Your task to perform on an android device: Open calendar and show me the third week of next month Image 0: 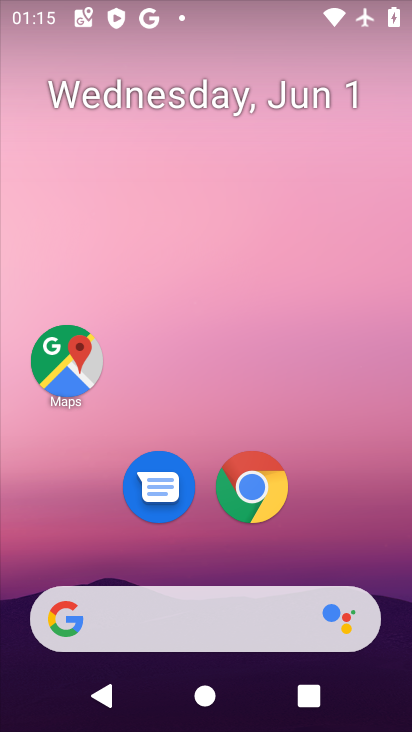
Step 0: drag from (322, 541) to (276, 233)
Your task to perform on an android device: Open calendar and show me the third week of next month Image 1: 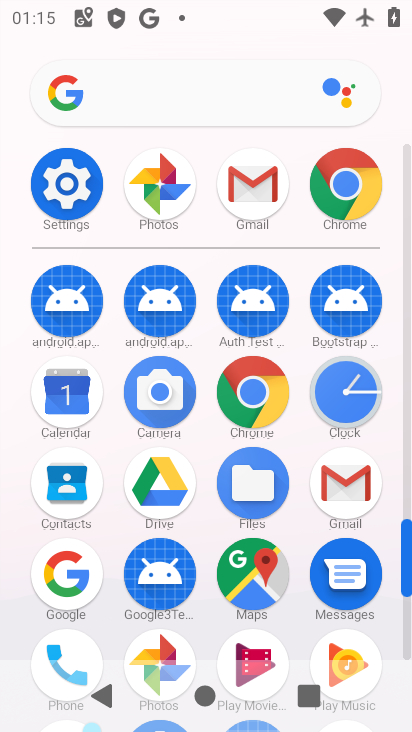
Step 1: click (55, 383)
Your task to perform on an android device: Open calendar and show me the third week of next month Image 2: 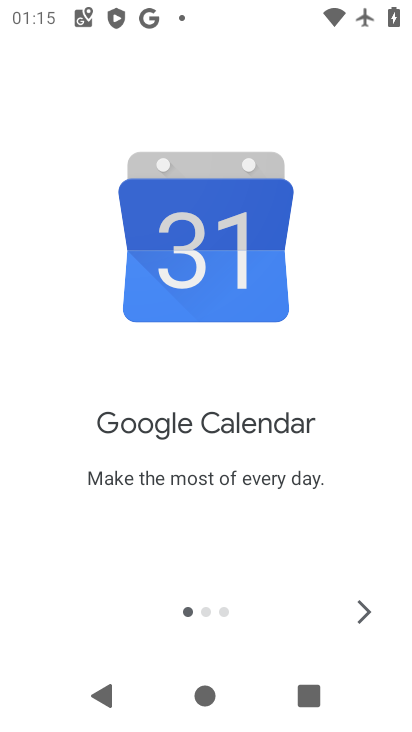
Step 2: click (359, 627)
Your task to perform on an android device: Open calendar and show me the third week of next month Image 3: 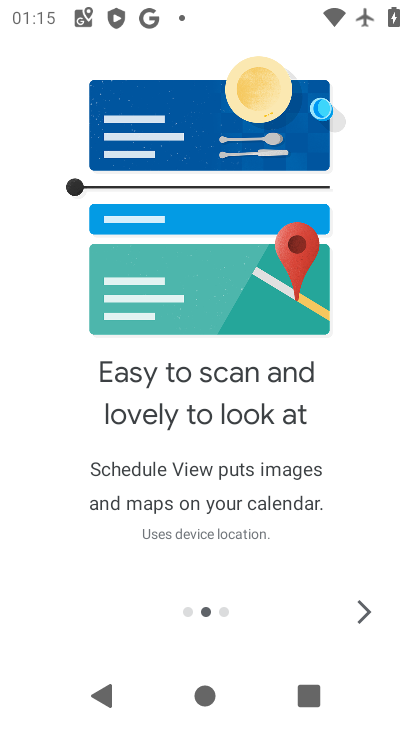
Step 3: click (360, 625)
Your task to perform on an android device: Open calendar and show me the third week of next month Image 4: 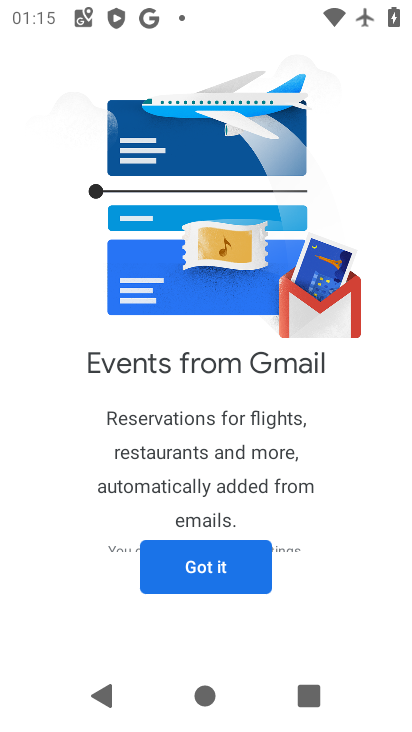
Step 4: click (208, 563)
Your task to perform on an android device: Open calendar and show me the third week of next month Image 5: 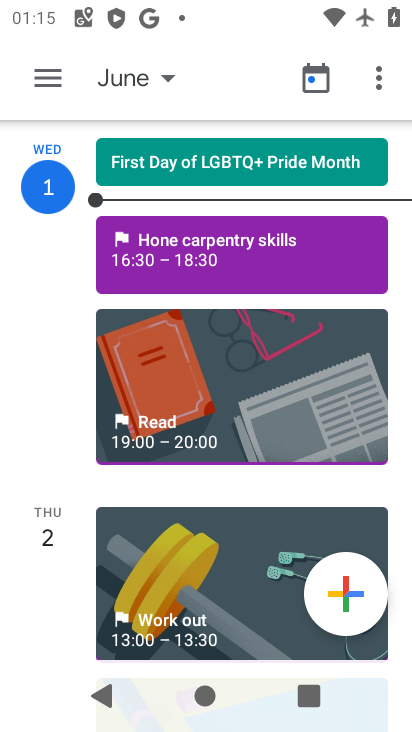
Step 5: click (46, 64)
Your task to perform on an android device: Open calendar and show me the third week of next month Image 6: 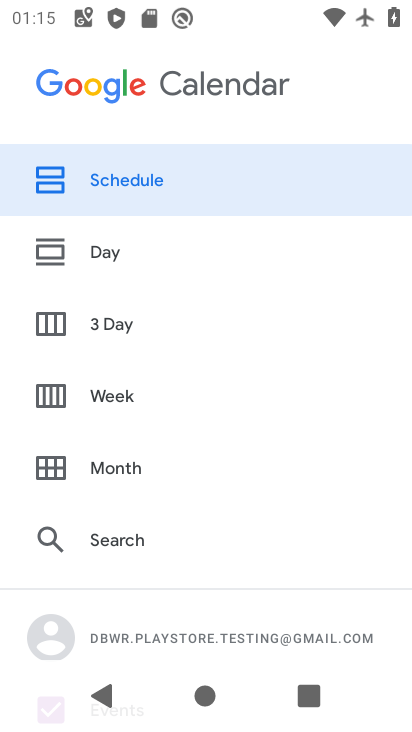
Step 6: click (127, 461)
Your task to perform on an android device: Open calendar and show me the third week of next month Image 7: 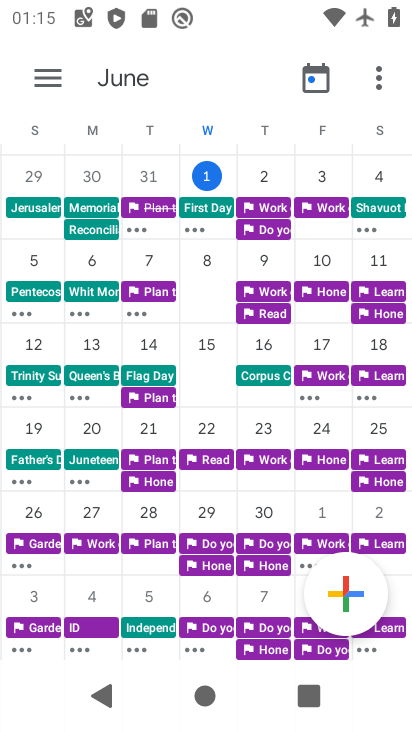
Step 7: task complete